Your task to perform on an android device: What's the weather going to be this weekend? Image 0: 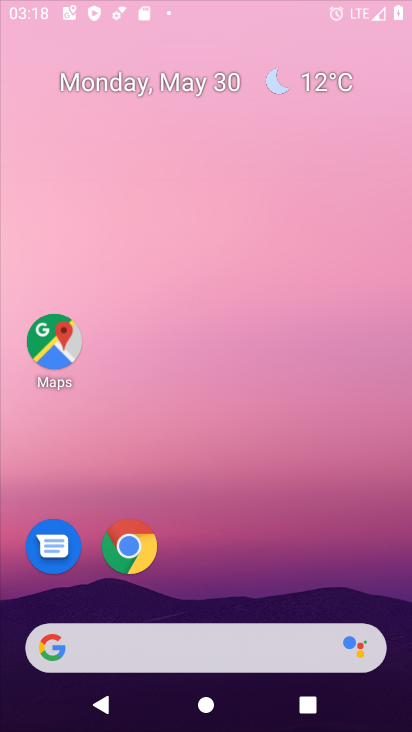
Step 0: press home button
Your task to perform on an android device: What's the weather going to be this weekend? Image 1: 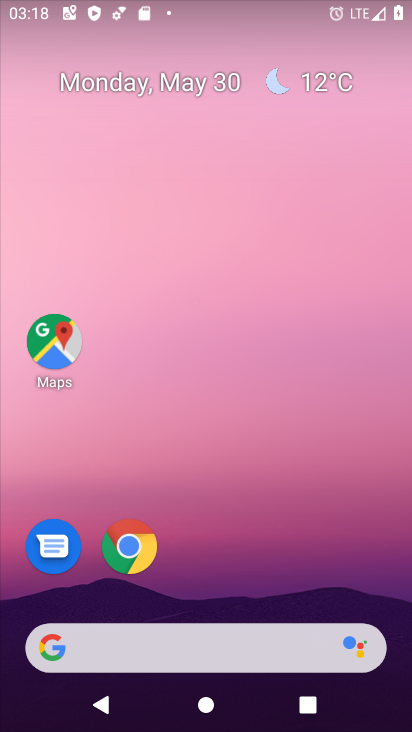
Step 1: click (326, 81)
Your task to perform on an android device: What's the weather going to be this weekend? Image 2: 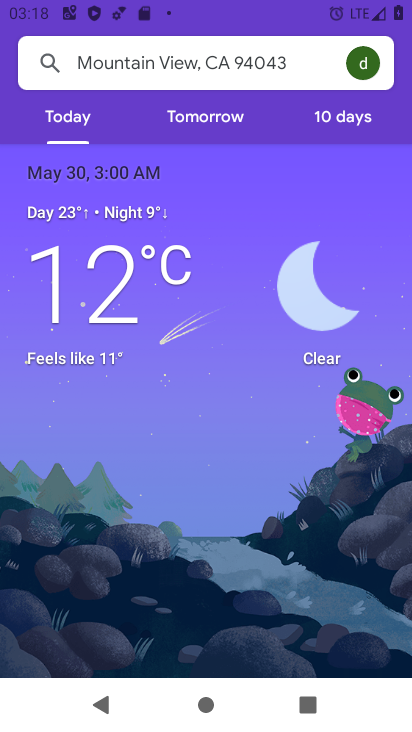
Step 2: click (334, 116)
Your task to perform on an android device: What's the weather going to be this weekend? Image 3: 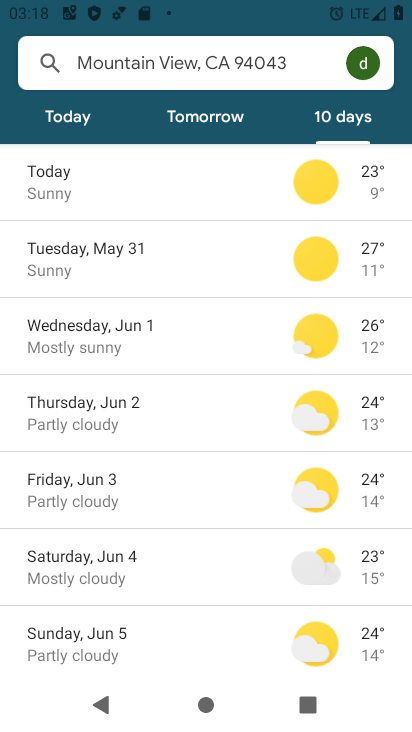
Step 3: task complete